Your task to perform on an android device: Open ESPN.com Image 0: 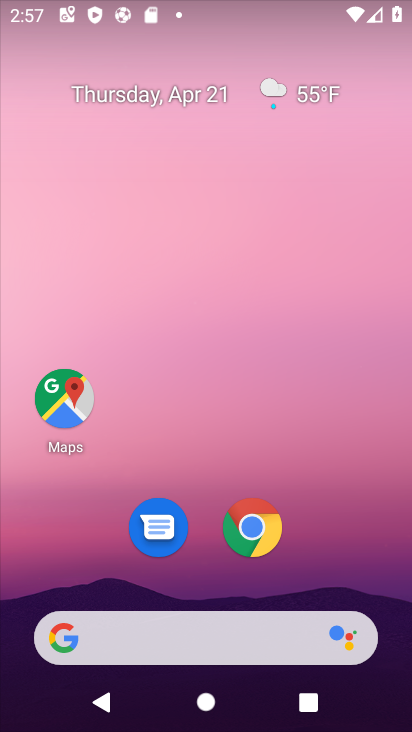
Step 0: drag from (346, 575) to (310, 100)
Your task to perform on an android device: Open ESPN.com Image 1: 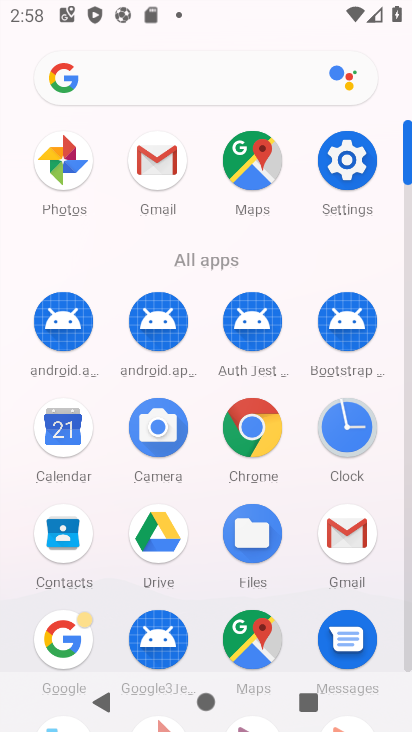
Step 1: click (262, 417)
Your task to perform on an android device: Open ESPN.com Image 2: 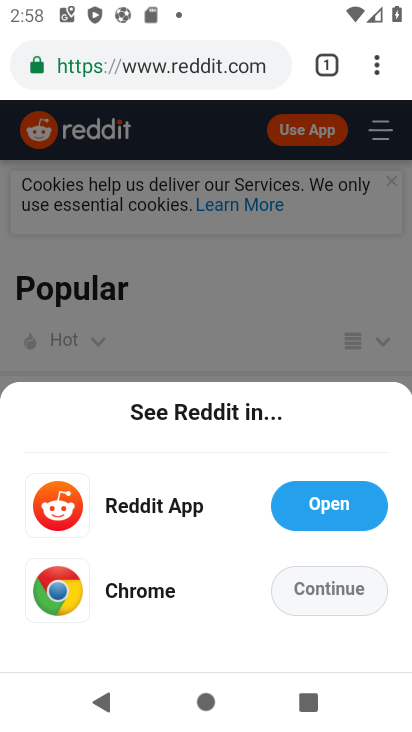
Step 2: click (357, 594)
Your task to perform on an android device: Open ESPN.com Image 3: 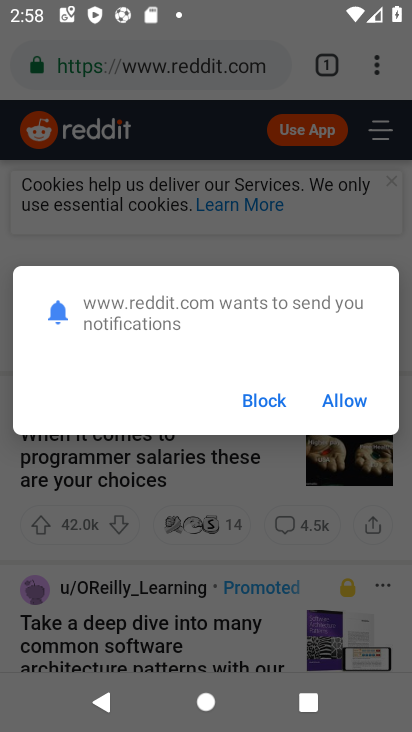
Step 3: click (248, 413)
Your task to perform on an android device: Open ESPN.com Image 4: 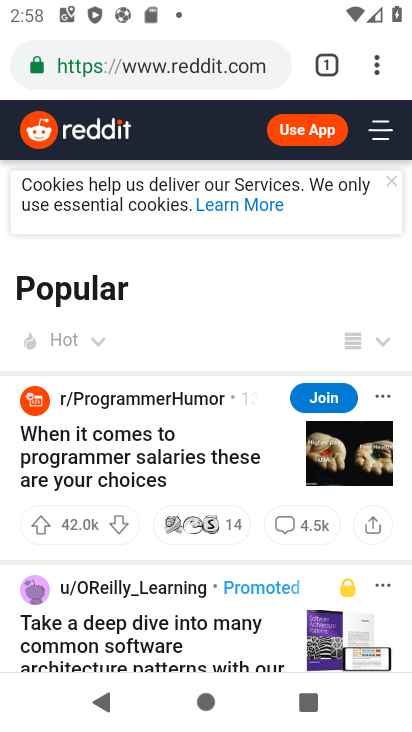
Step 4: click (324, 53)
Your task to perform on an android device: Open ESPN.com Image 5: 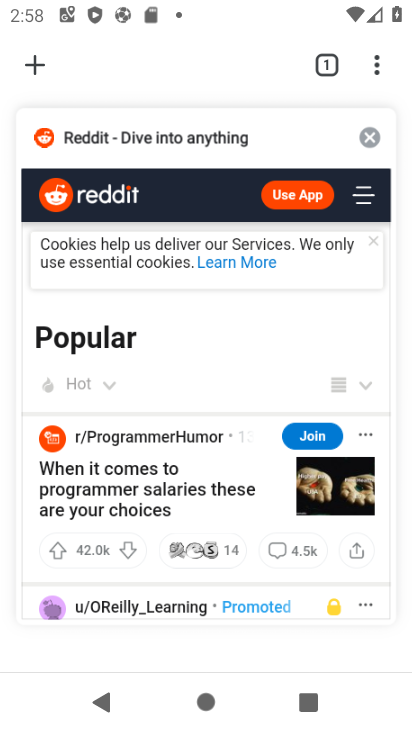
Step 5: click (38, 69)
Your task to perform on an android device: Open ESPN.com Image 6: 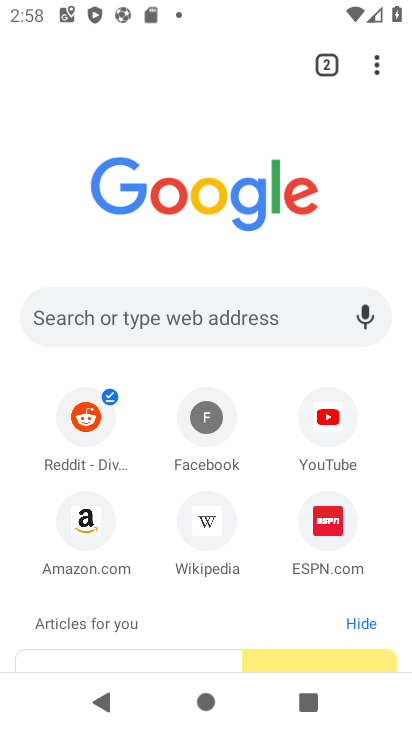
Step 6: click (332, 531)
Your task to perform on an android device: Open ESPN.com Image 7: 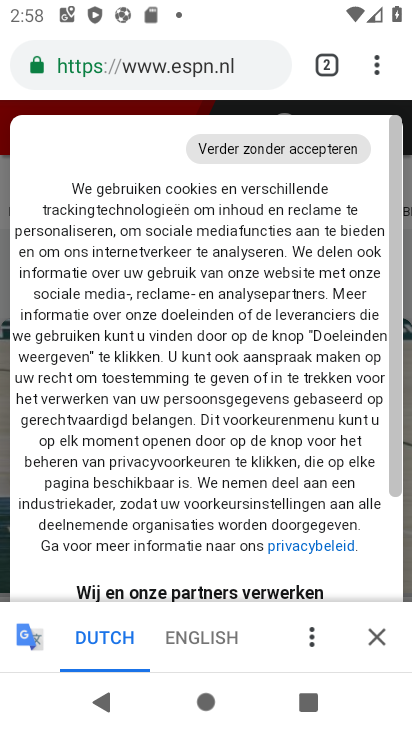
Step 7: task complete